Your task to perform on an android device: What's the weather going to be tomorrow? Image 0: 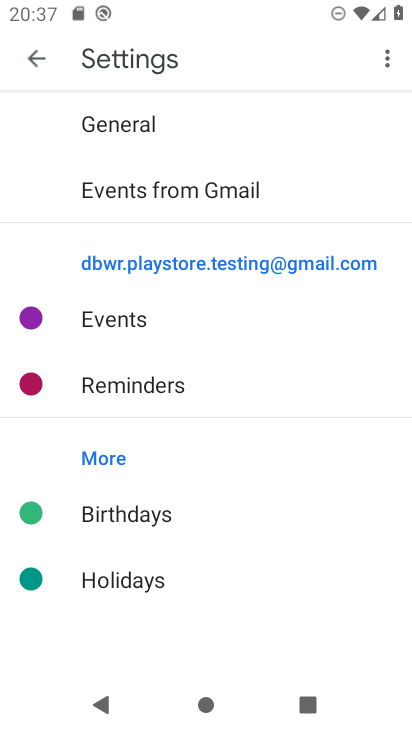
Step 0: press home button
Your task to perform on an android device: What's the weather going to be tomorrow? Image 1: 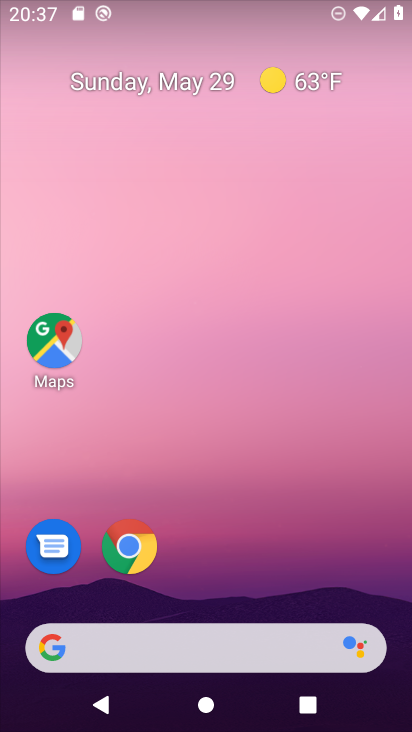
Step 1: click (324, 81)
Your task to perform on an android device: What's the weather going to be tomorrow? Image 2: 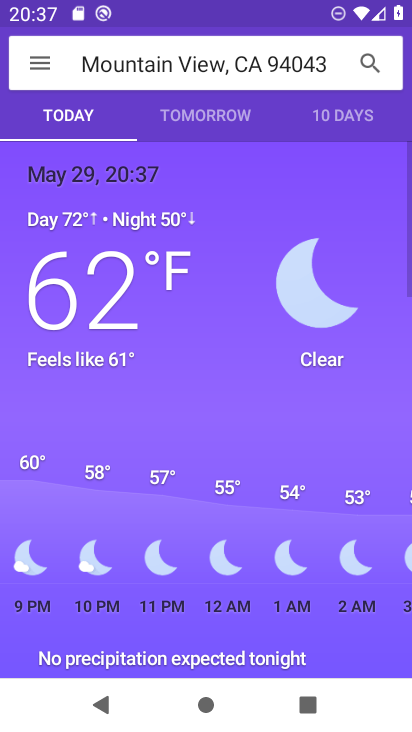
Step 2: click (201, 120)
Your task to perform on an android device: What's the weather going to be tomorrow? Image 3: 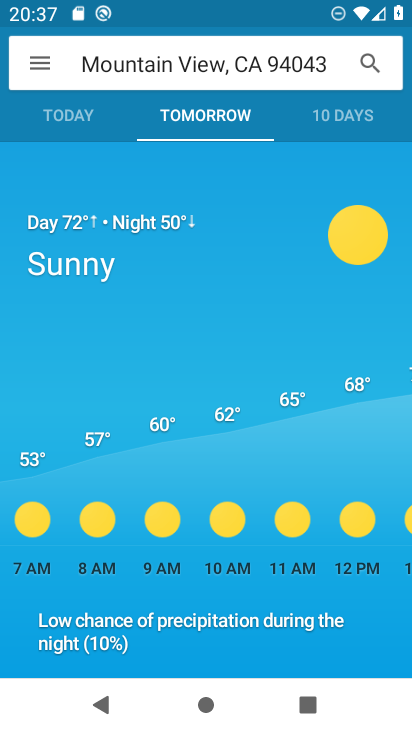
Step 3: task complete